Your task to perform on an android device: Open internet settings Image 0: 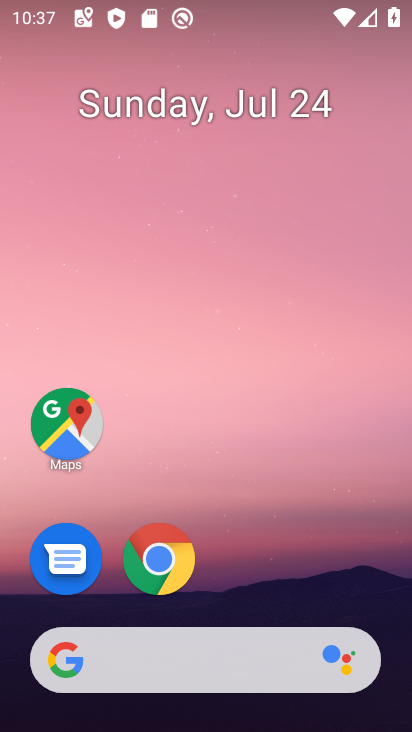
Step 0: drag from (316, 548) to (295, 12)
Your task to perform on an android device: Open internet settings Image 1: 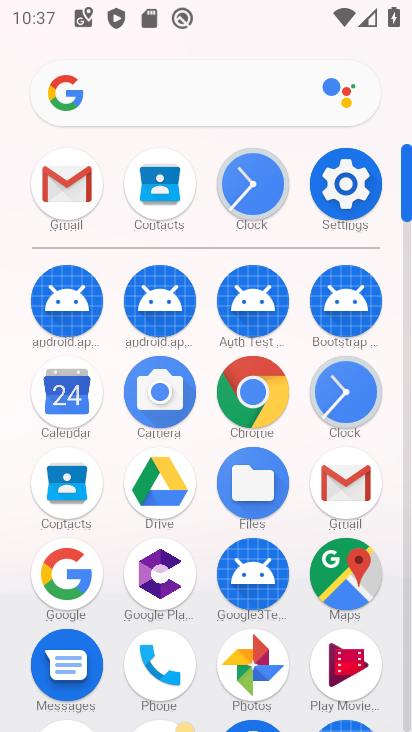
Step 1: click (363, 189)
Your task to perform on an android device: Open internet settings Image 2: 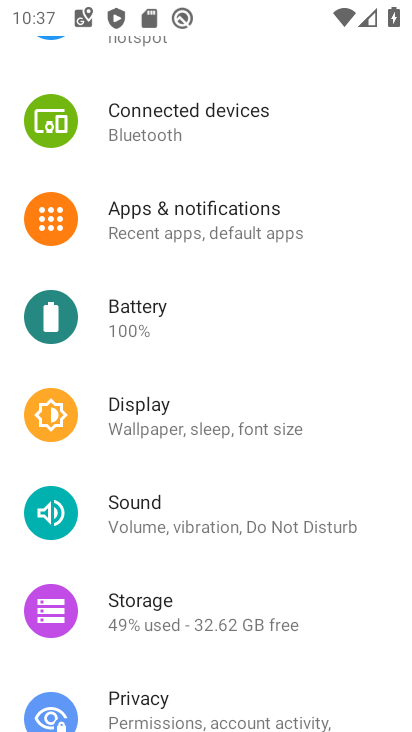
Step 2: drag from (274, 200) to (194, 728)
Your task to perform on an android device: Open internet settings Image 3: 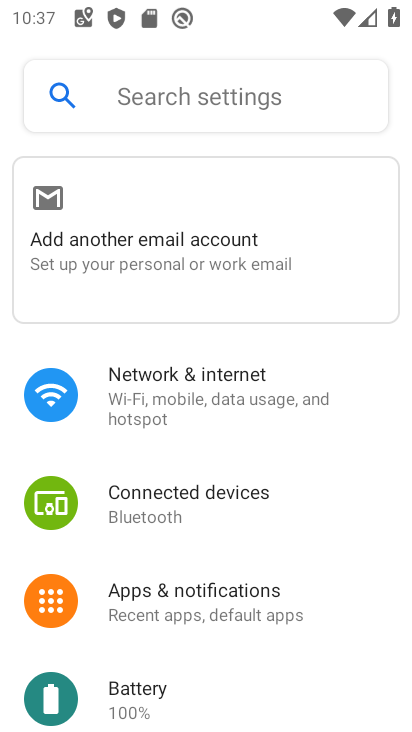
Step 3: click (195, 421)
Your task to perform on an android device: Open internet settings Image 4: 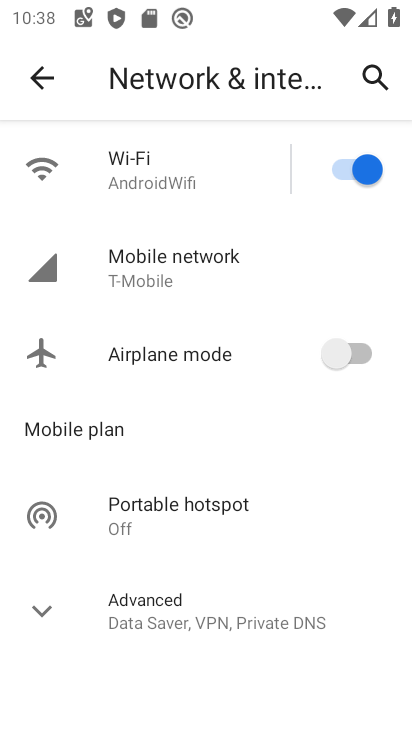
Step 4: task complete